Your task to perform on an android device: Open ESPN.com Image 0: 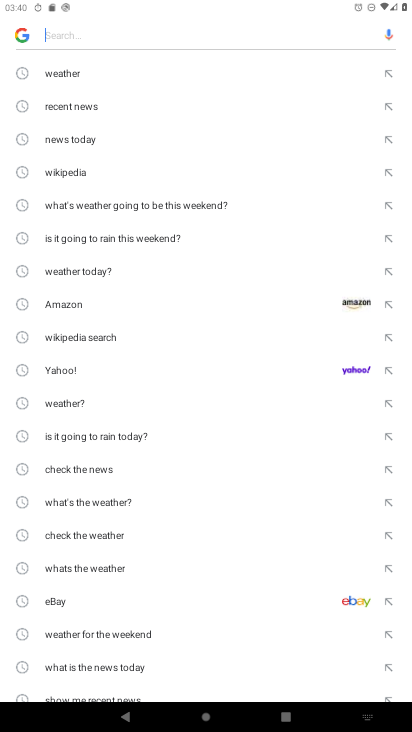
Step 0: press home button
Your task to perform on an android device: Open ESPN.com Image 1: 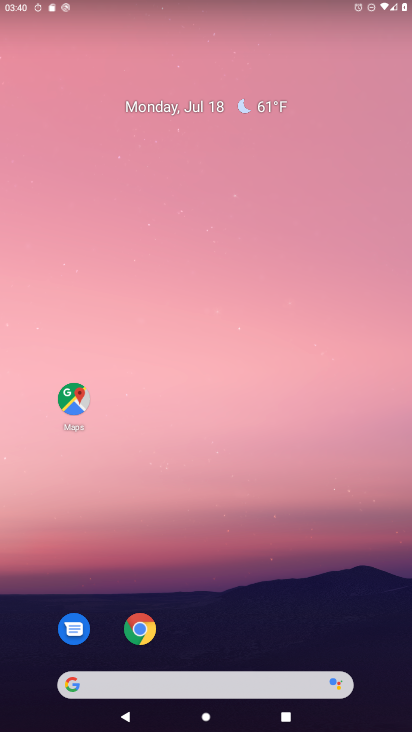
Step 1: click (142, 632)
Your task to perform on an android device: Open ESPN.com Image 2: 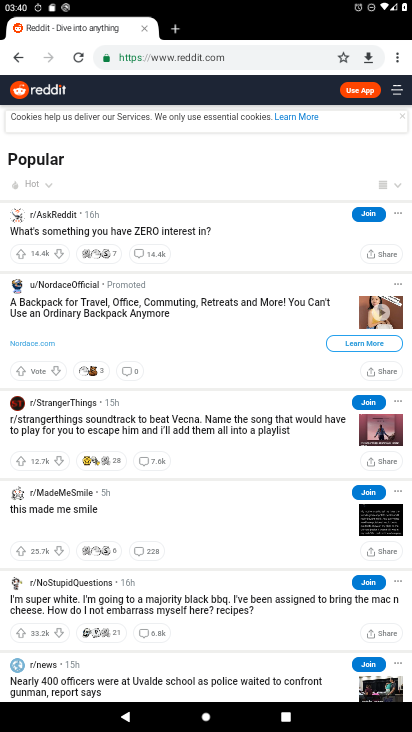
Step 2: click (265, 52)
Your task to perform on an android device: Open ESPN.com Image 3: 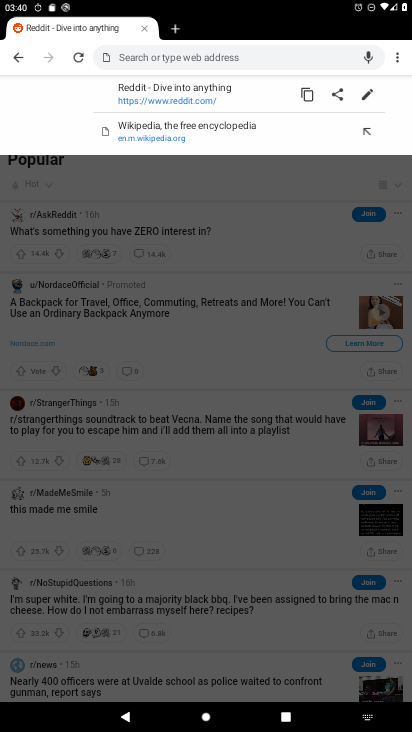
Step 3: type "ESPN.com"
Your task to perform on an android device: Open ESPN.com Image 4: 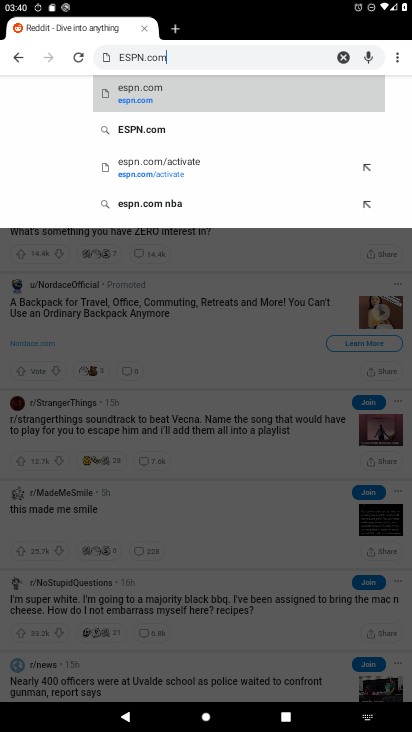
Step 4: type ""
Your task to perform on an android device: Open ESPN.com Image 5: 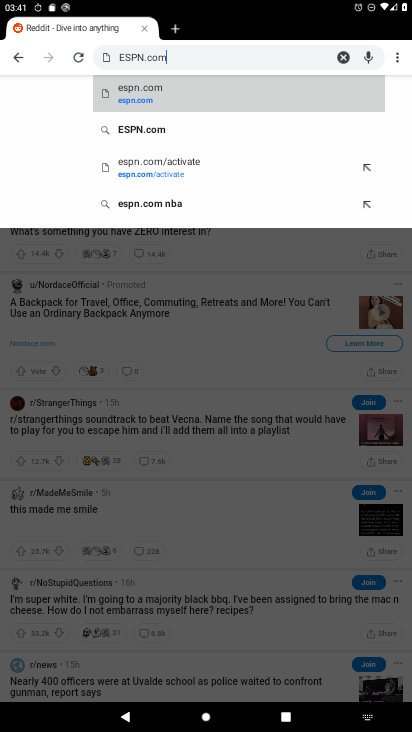
Step 5: click (160, 131)
Your task to perform on an android device: Open ESPN.com Image 6: 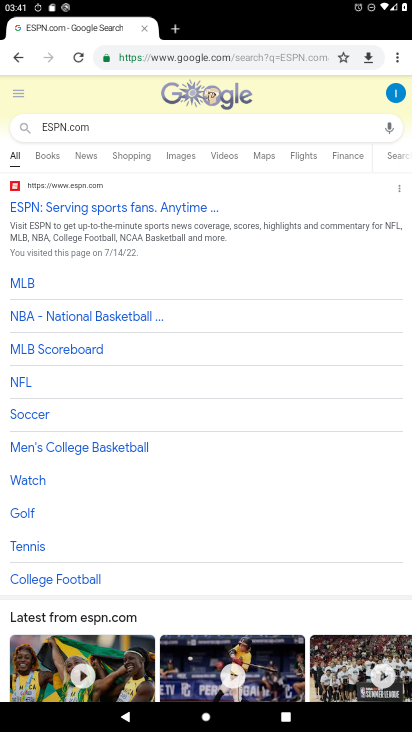
Step 6: click (100, 210)
Your task to perform on an android device: Open ESPN.com Image 7: 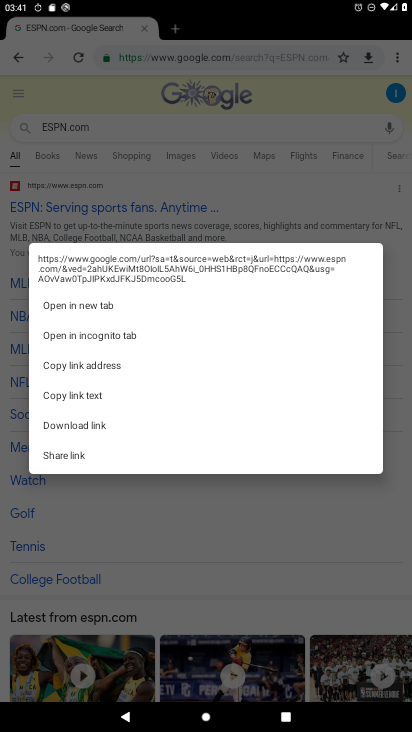
Step 7: click (162, 207)
Your task to perform on an android device: Open ESPN.com Image 8: 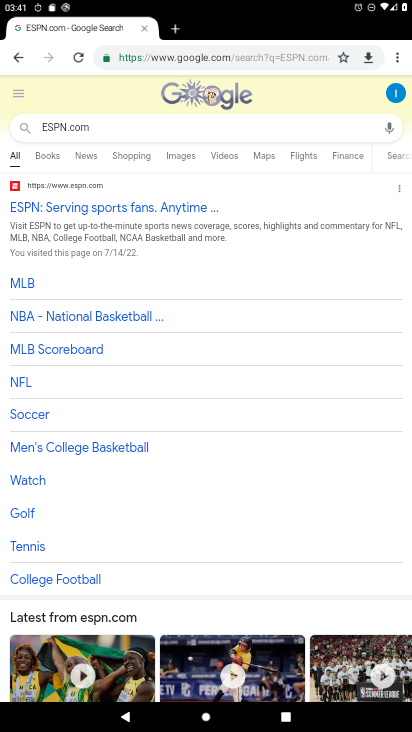
Step 8: click (162, 207)
Your task to perform on an android device: Open ESPN.com Image 9: 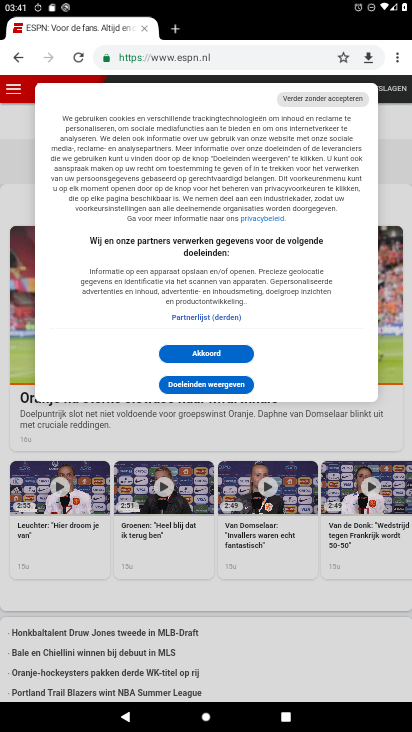
Step 9: task complete